Your task to perform on an android device: Open Maps and search for coffee Image 0: 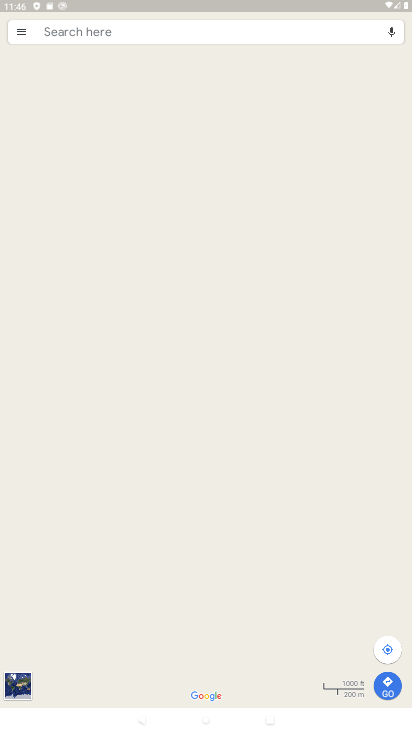
Step 0: press home button
Your task to perform on an android device: Open Maps and search for coffee Image 1: 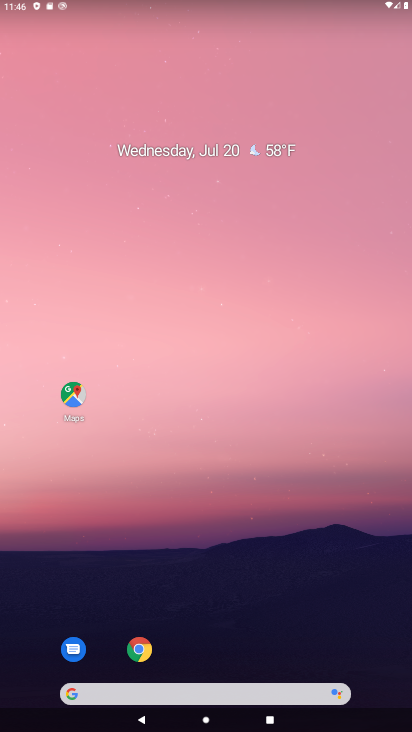
Step 1: click (75, 385)
Your task to perform on an android device: Open Maps and search for coffee Image 2: 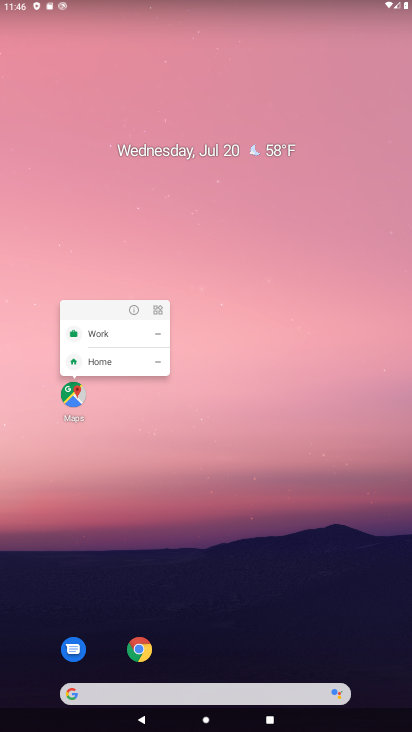
Step 2: click (83, 393)
Your task to perform on an android device: Open Maps and search for coffee Image 3: 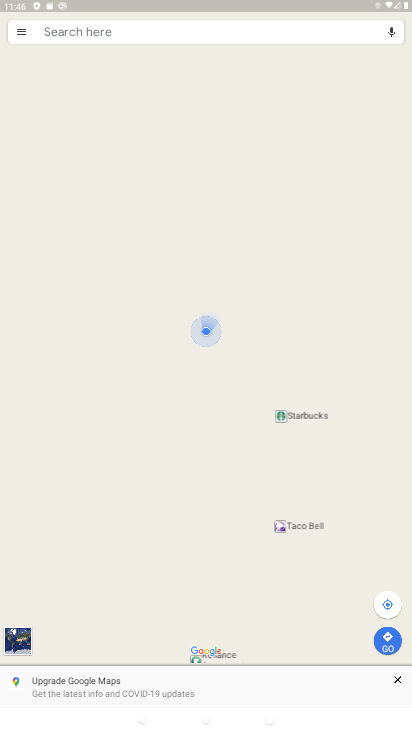
Step 3: task complete